Your task to perform on an android device: turn on javascript in the chrome app Image 0: 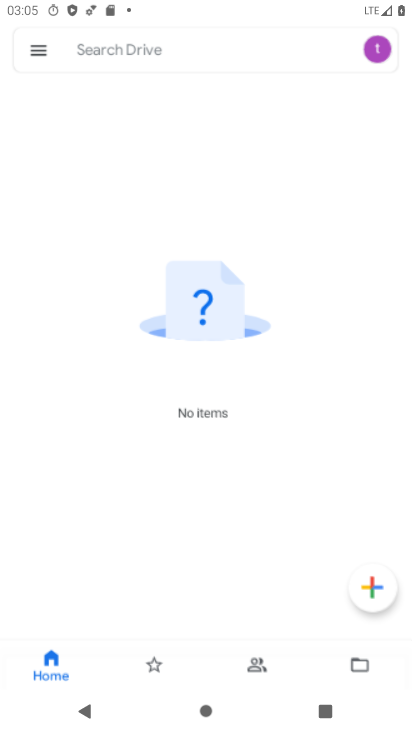
Step 0: drag from (189, 600) to (230, 6)
Your task to perform on an android device: turn on javascript in the chrome app Image 1: 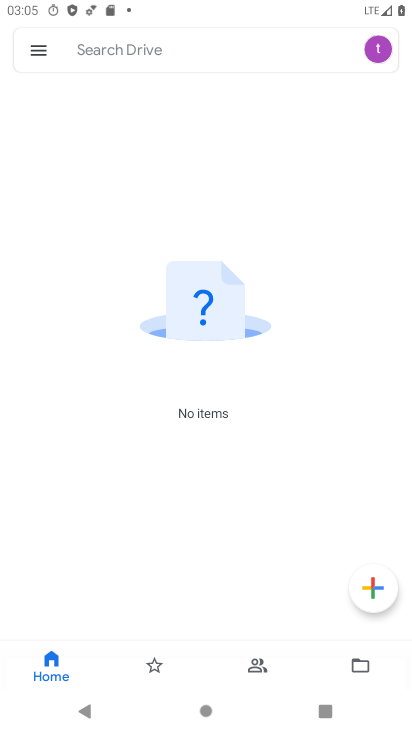
Step 1: press home button
Your task to perform on an android device: turn on javascript in the chrome app Image 2: 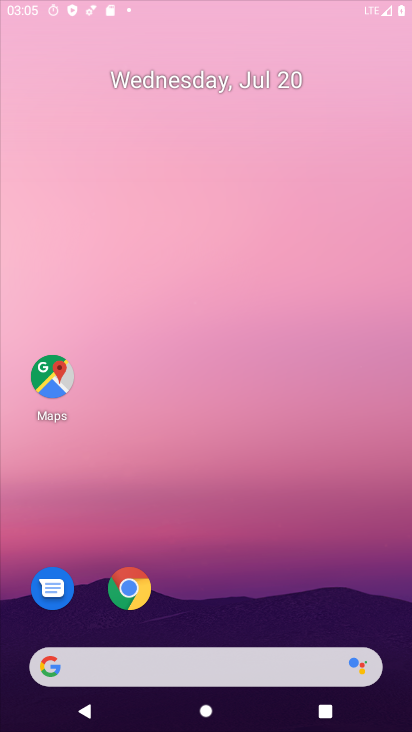
Step 2: drag from (213, 512) to (228, 38)
Your task to perform on an android device: turn on javascript in the chrome app Image 3: 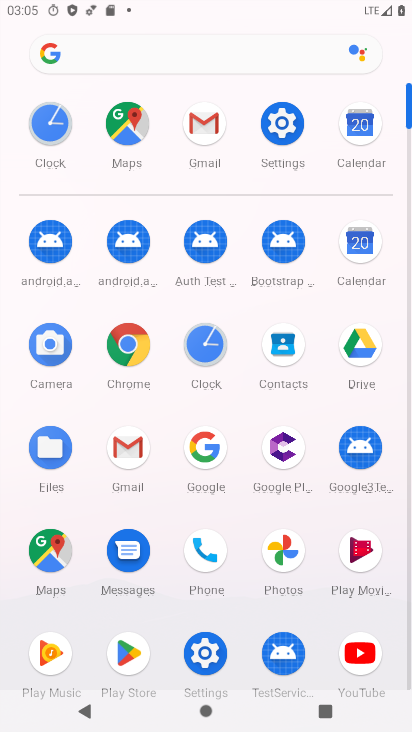
Step 3: click (132, 351)
Your task to perform on an android device: turn on javascript in the chrome app Image 4: 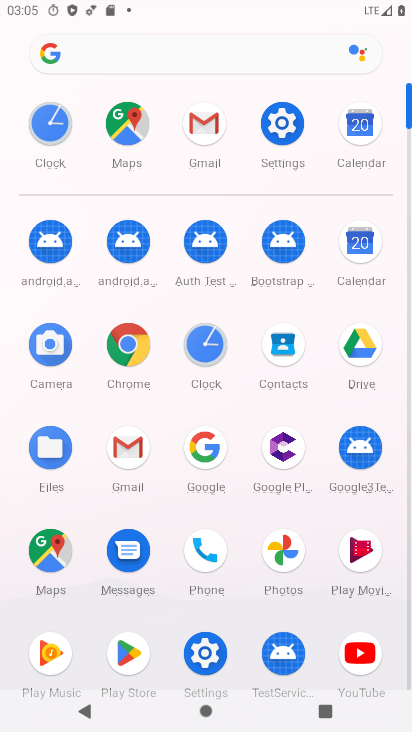
Step 4: click (132, 351)
Your task to perform on an android device: turn on javascript in the chrome app Image 5: 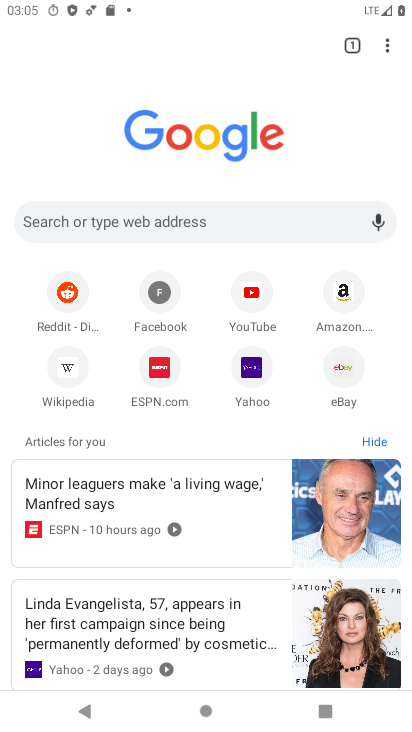
Step 5: drag from (390, 38) to (262, 384)
Your task to perform on an android device: turn on javascript in the chrome app Image 6: 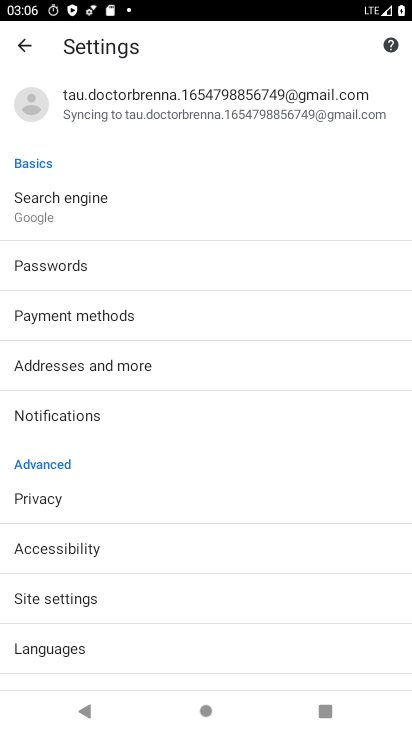
Step 6: click (117, 585)
Your task to perform on an android device: turn on javascript in the chrome app Image 7: 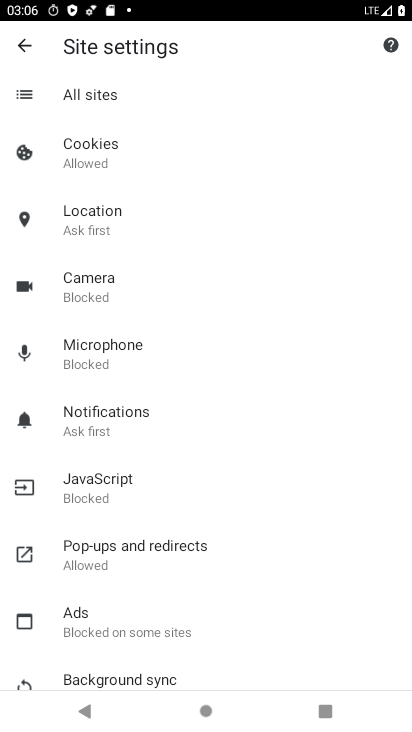
Step 7: click (99, 489)
Your task to perform on an android device: turn on javascript in the chrome app Image 8: 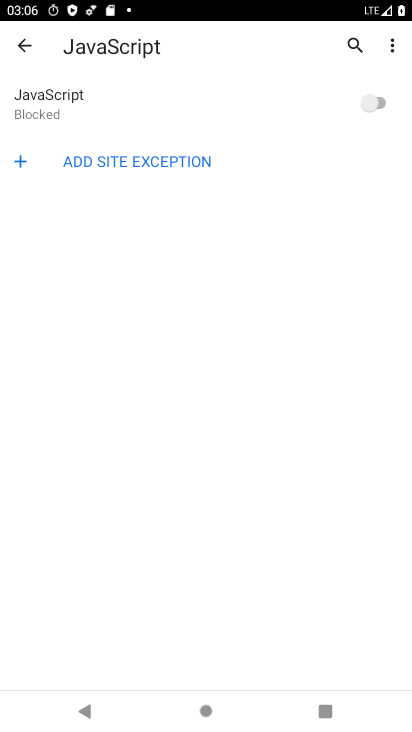
Step 8: drag from (249, 341) to (252, 259)
Your task to perform on an android device: turn on javascript in the chrome app Image 9: 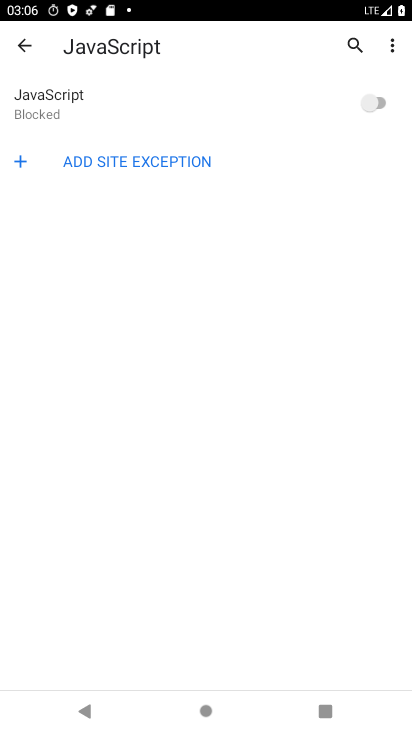
Step 9: click (365, 94)
Your task to perform on an android device: turn on javascript in the chrome app Image 10: 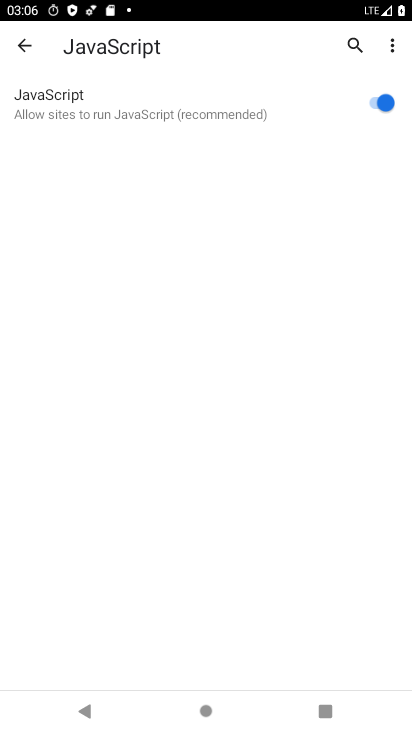
Step 10: task complete